Your task to perform on an android device: Open calendar and show me the fourth week of next month Image 0: 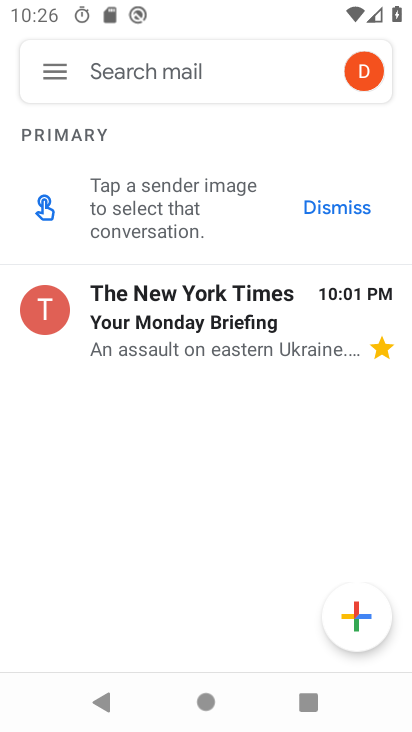
Step 0: press home button
Your task to perform on an android device: Open calendar and show me the fourth week of next month Image 1: 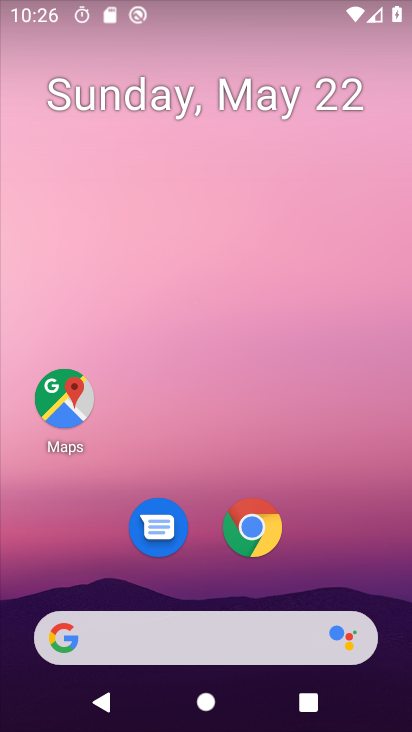
Step 1: drag from (198, 673) to (217, 76)
Your task to perform on an android device: Open calendar and show me the fourth week of next month Image 2: 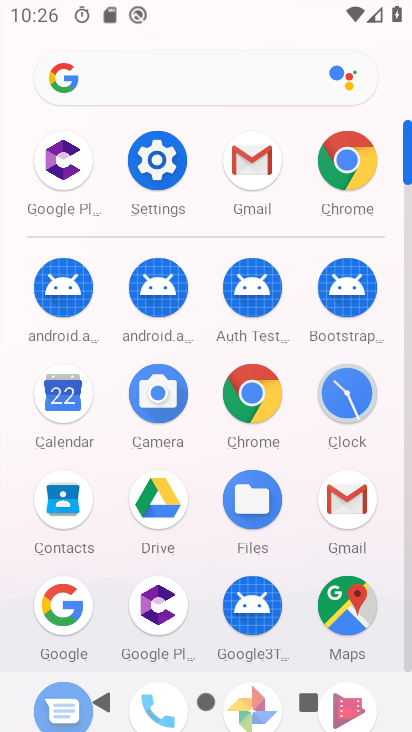
Step 2: click (66, 416)
Your task to perform on an android device: Open calendar and show me the fourth week of next month Image 3: 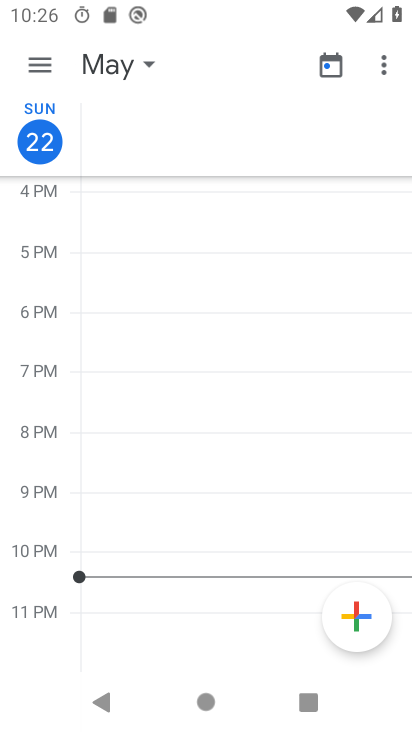
Step 3: click (138, 68)
Your task to perform on an android device: Open calendar and show me the fourth week of next month Image 4: 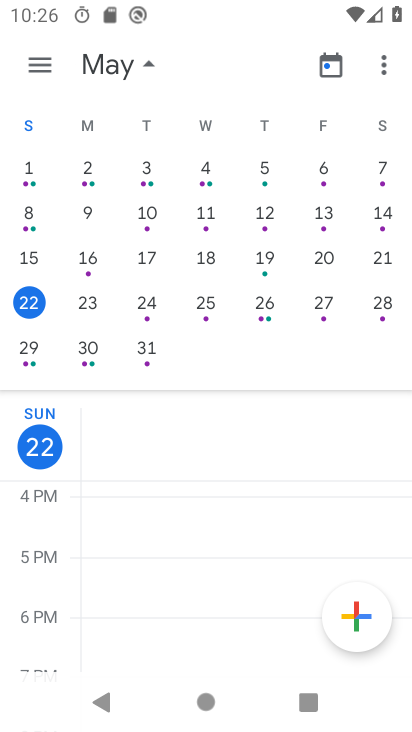
Step 4: drag from (388, 316) to (3, 318)
Your task to perform on an android device: Open calendar and show me the fourth week of next month Image 5: 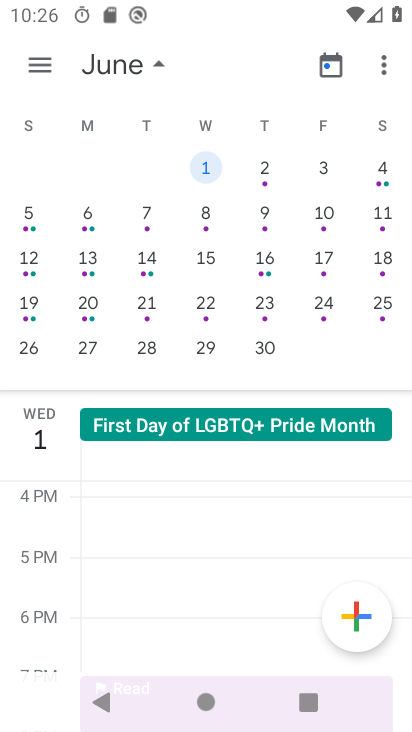
Step 5: drag from (234, 319) to (165, 331)
Your task to perform on an android device: Open calendar and show me the fourth week of next month Image 6: 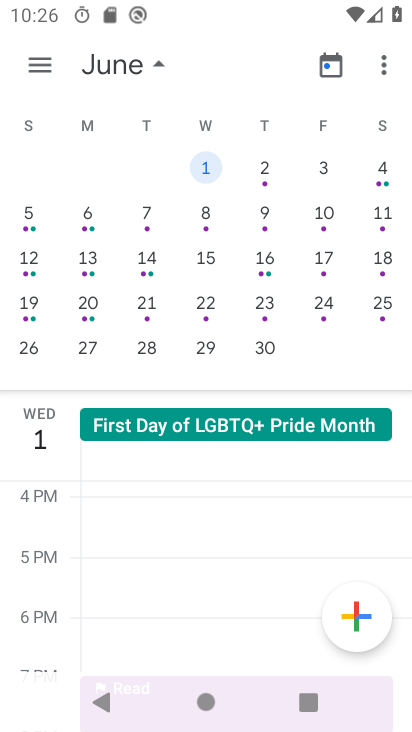
Step 6: click (33, 351)
Your task to perform on an android device: Open calendar and show me the fourth week of next month Image 7: 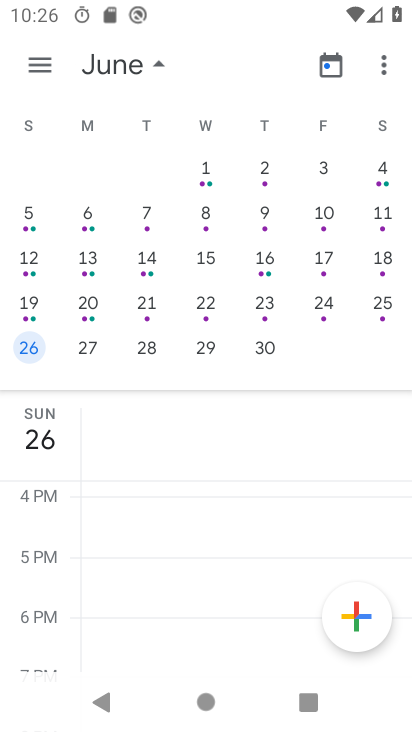
Step 7: task complete